Your task to perform on an android device: Do I have any events tomorrow? Image 0: 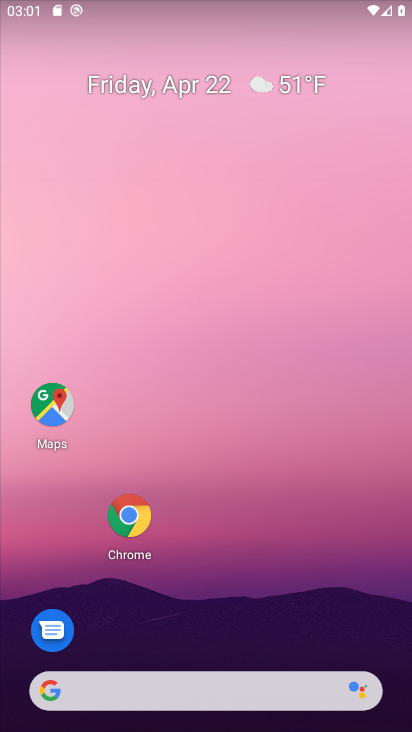
Step 0: click (330, 208)
Your task to perform on an android device: Do I have any events tomorrow? Image 1: 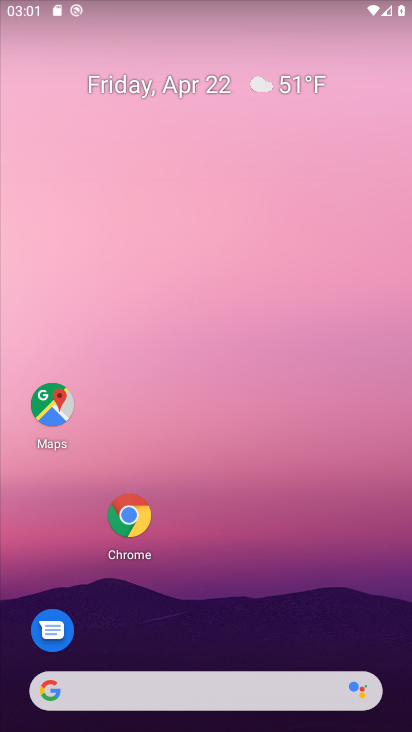
Step 1: click (357, 261)
Your task to perform on an android device: Do I have any events tomorrow? Image 2: 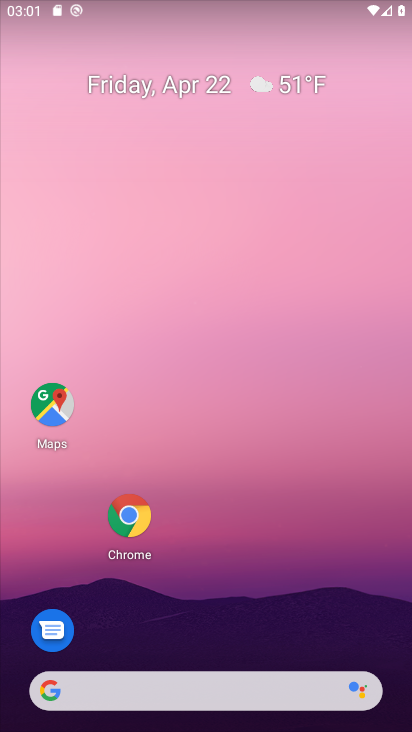
Step 2: drag from (354, 532) to (300, 219)
Your task to perform on an android device: Do I have any events tomorrow? Image 3: 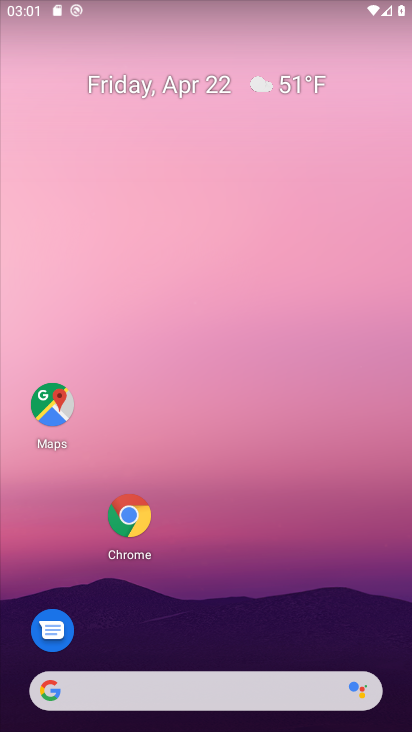
Step 3: drag from (314, 242) to (278, 85)
Your task to perform on an android device: Do I have any events tomorrow? Image 4: 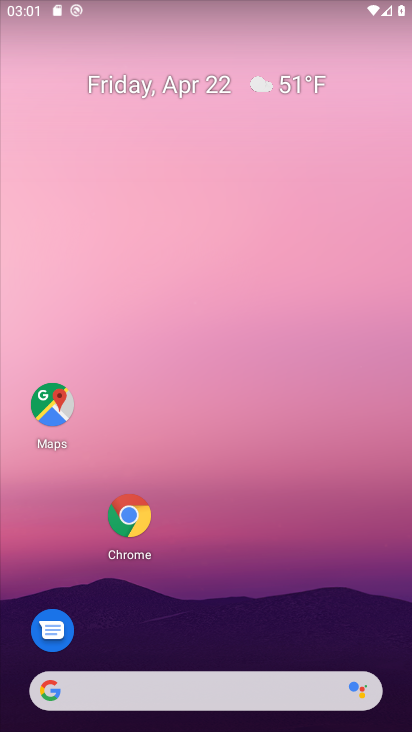
Step 4: click (336, 67)
Your task to perform on an android device: Do I have any events tomorrow? Image 5: 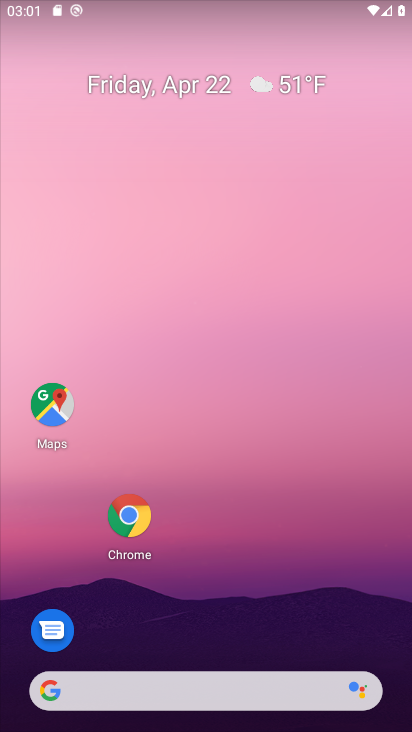
Step 5: drag from (354, 426) to (338, 218)
Your task to perform on an android device: Do I have any events tomorrow? Image 6: 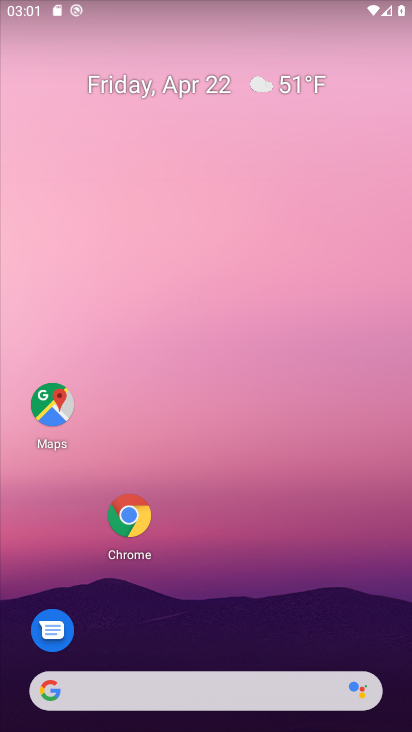
Step 6: click (362, 363)
Your task to perform on an android device: Do I have any events tomorrow? Image 7: 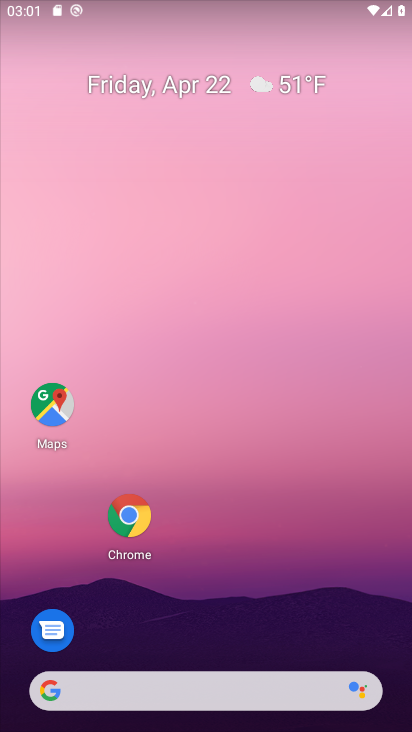
Step 7: drag from (330, 140) to (324, 6)
Your task to perform on an android device: Do I have any events tomorrow? Image 8: 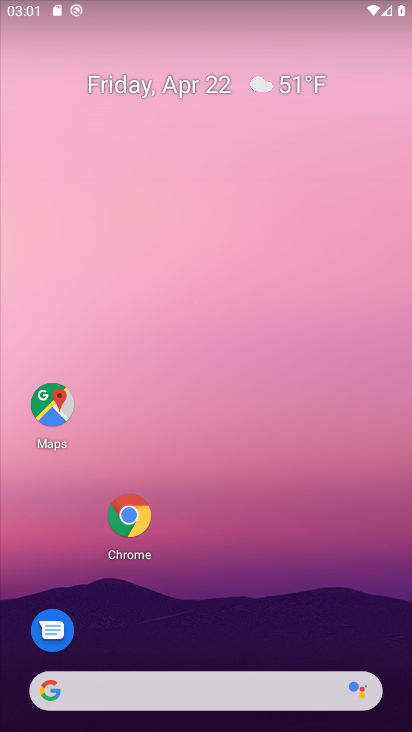
Step 8: drag from (336, 203) to (321, 101)
Your task to perform on an android device: Do I have any events tomorrow? Image 9: 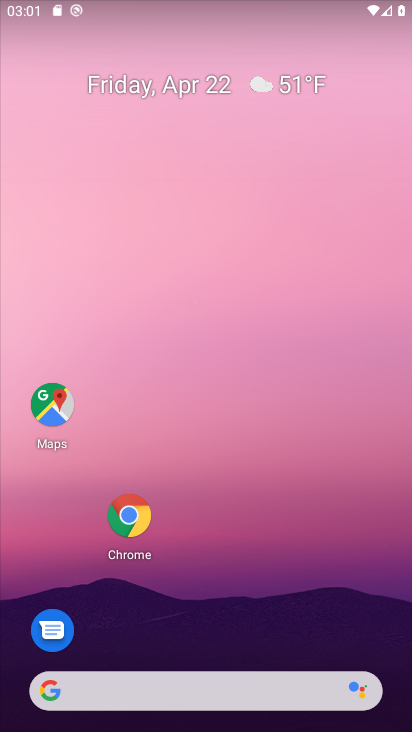
Step 9: drag from (362, 585) to (318, 112)
Your task to perform on an android device: Do I have any events tomorrow? Image 10: 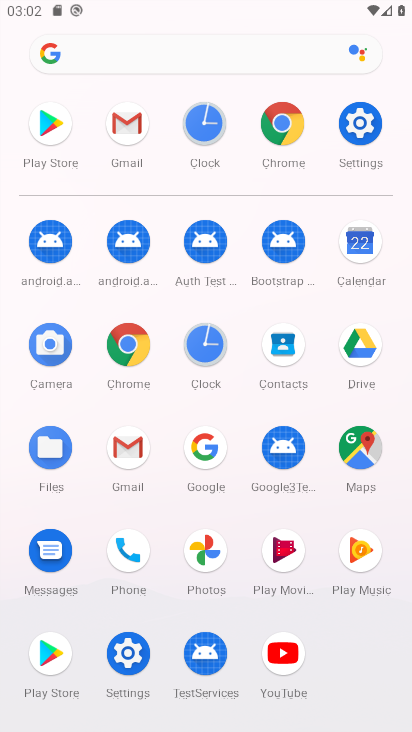
Step 10: click (363, 254)
Your task to perform on an android device: Do I have any events tomorrow? Image 11: 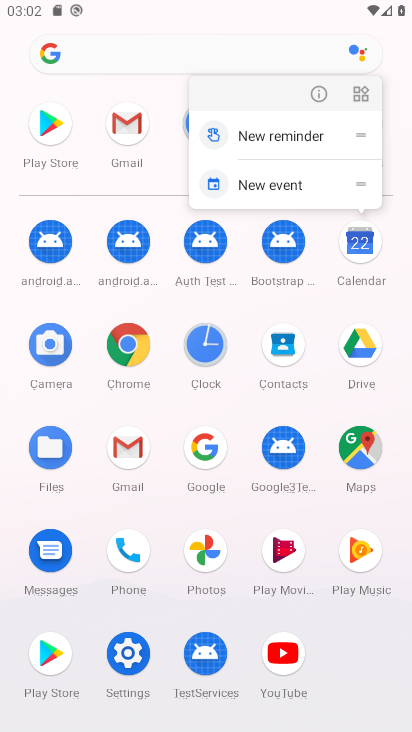
Step 11: click (360, 231)
Your task to perform on an android device: Do I have any events tomorrow? Image 12: 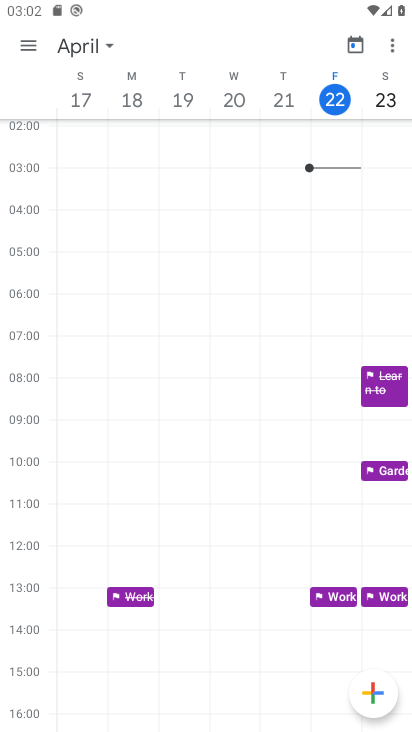
Step 12: click (392, 93)
Your task to perform on an android device: Do I have any events tomorrow? Image 13: 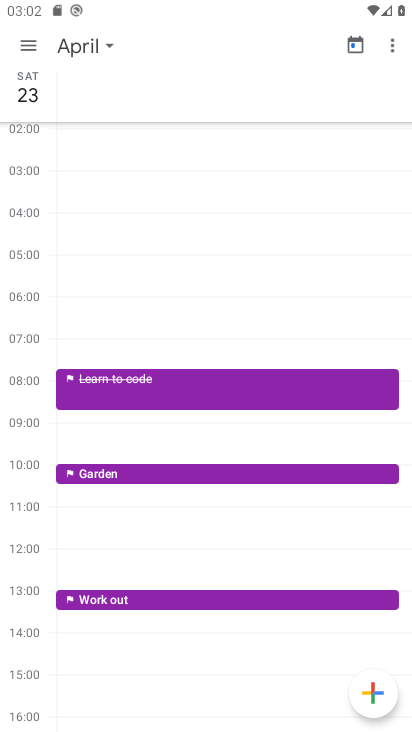
Step 13: task complete